Your task to perform on an android device: Open calendar and show me the first week of next month Image 0: 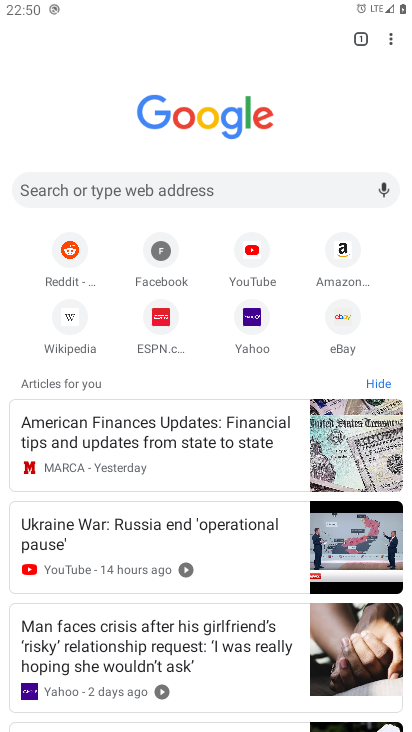
Step 0: press home button
Your task to perform on an android device: Open calendar and show me the first week of next month Image 1: 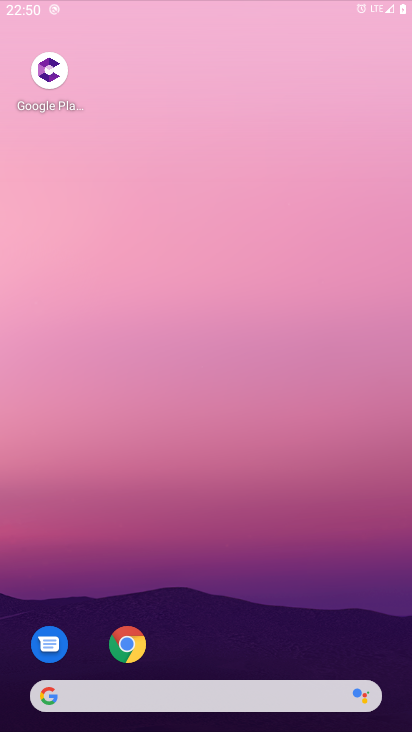
Step 1: press home button
Your task to perform on an android device: Open calendar and show me the first week of next month Image 2: 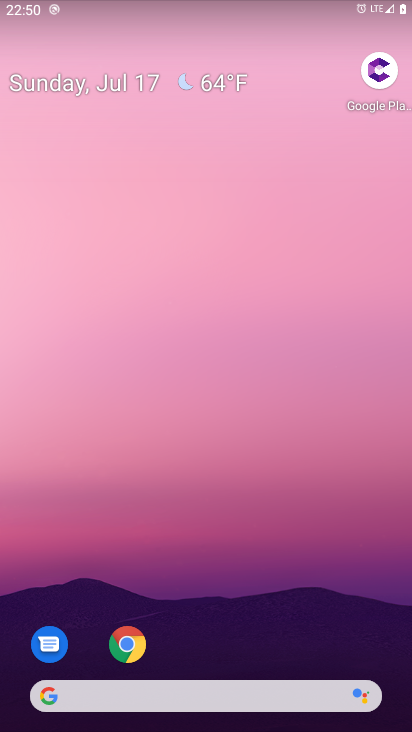
Step 2: drag from (328, 588) to (321, 116)
Your task to perform on an android device: Open calendar and show me the first week of next month Image 3: 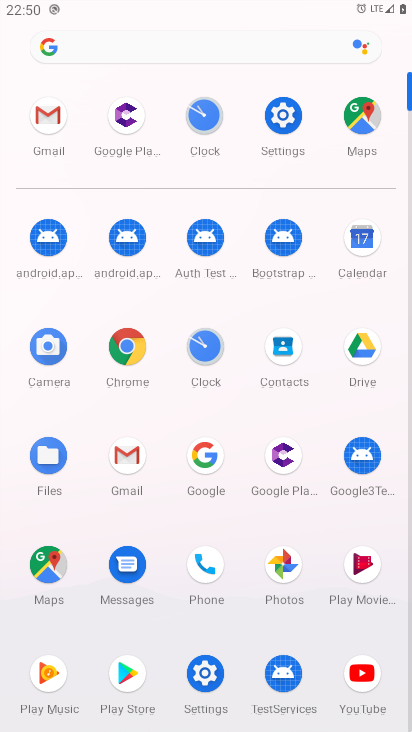
Step 3: click (360, 241)
Your task to perform on an android device: Open calendar and show me the first week of next month Image 4: 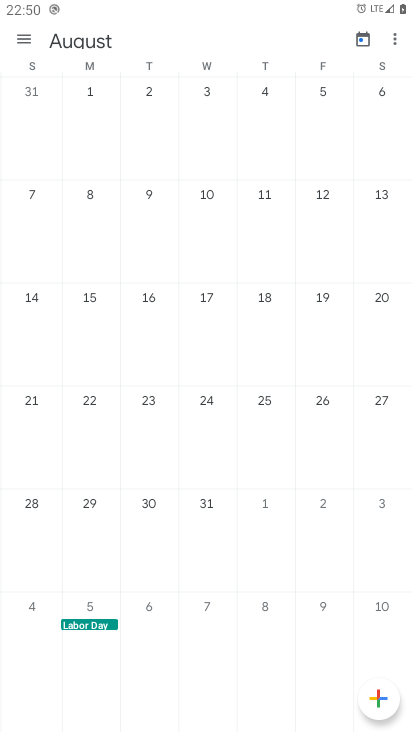
Step 4: task complete